Your task to perform on an android device: set the stopwatch Image 0: 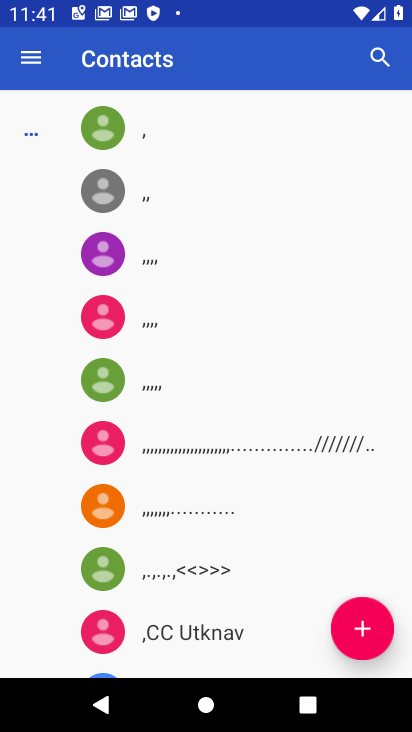
Step 0: press home button
Your task to perform on an android device: set the stopwatch Image 1: 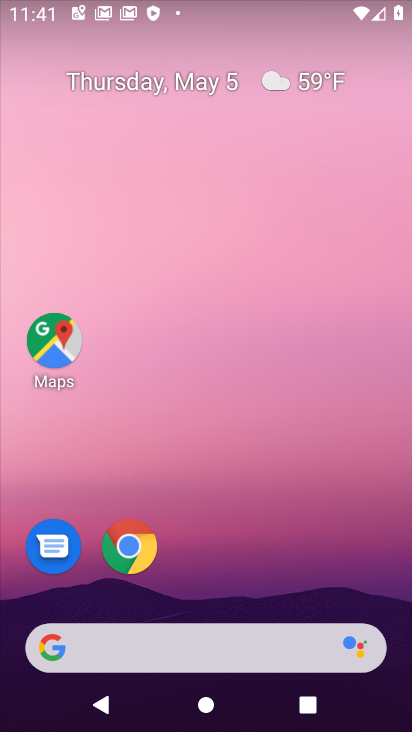
Step 1: drag from (257, 514) to (264, 97)
Your task to perform on an android device: set the stopwatch Image 2: 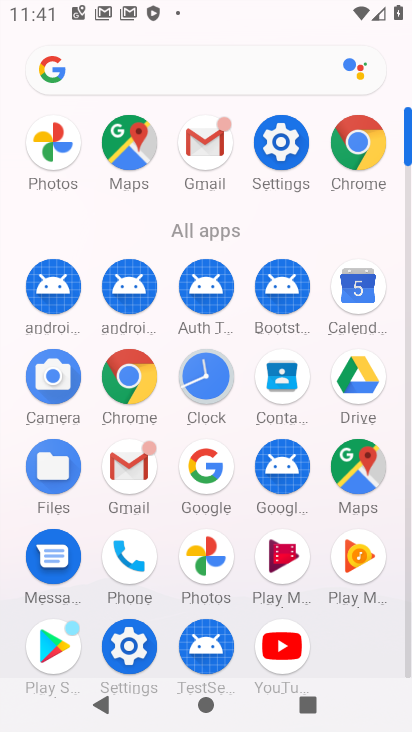
Step 2: click (209, 387)
Your task to perform on an android device: set the stopwatch Image 3: 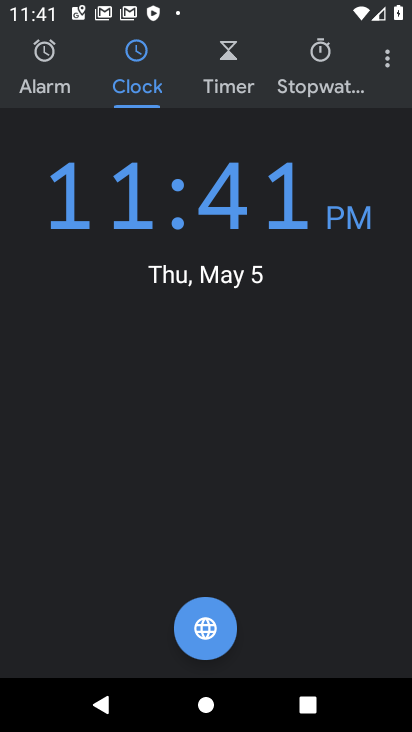
Step 3: click (302, 61)
Your task to perform on an android device: set the stopwatch Image 4: 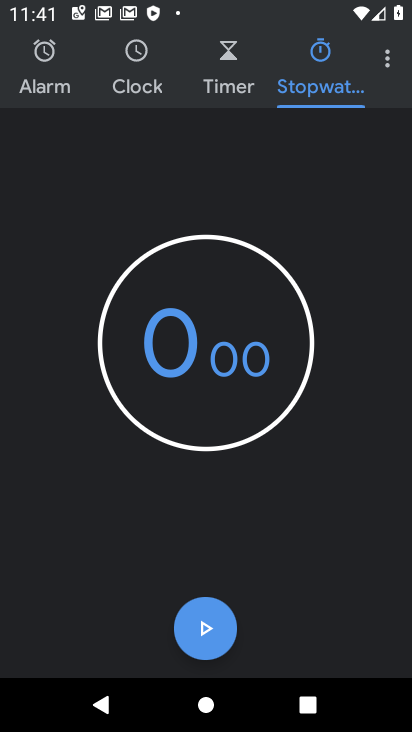
Step 4: click (215, 621)
Your task to perform on an android device: set the stopwatch Image 5: 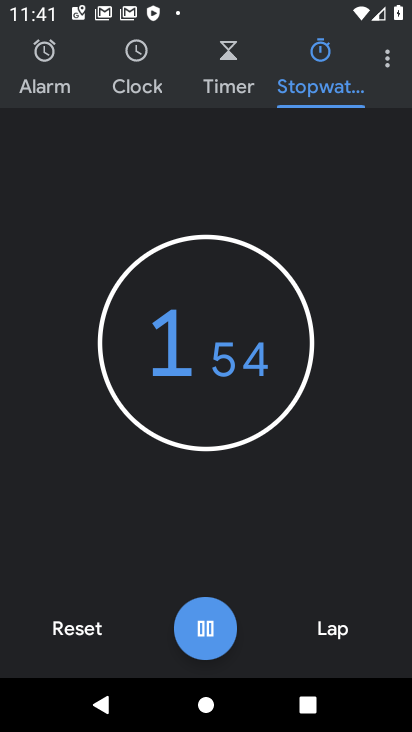
Step 5: task complete